Your task to perform on an android device: Open Chrome and go to settings Image 0: 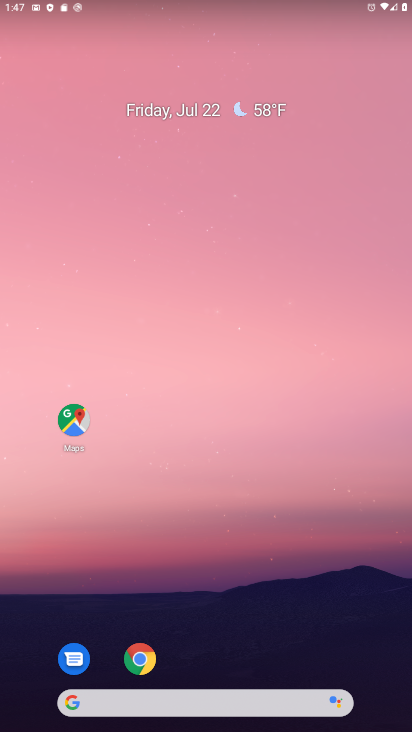
Step 0: drag from (239, 677) to (243, 49)
Your task to perform on an android device: Open Chrome and go to settings Image 1: 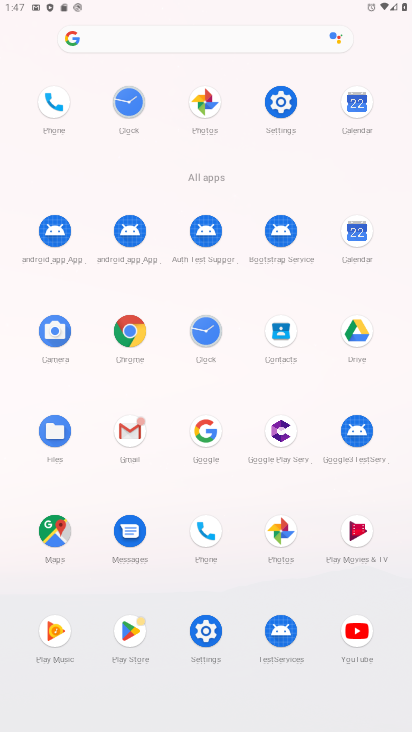
Step 1: click (138, 326)
Your task to perform on an android device: Open Chrome and go to settings Image 2: 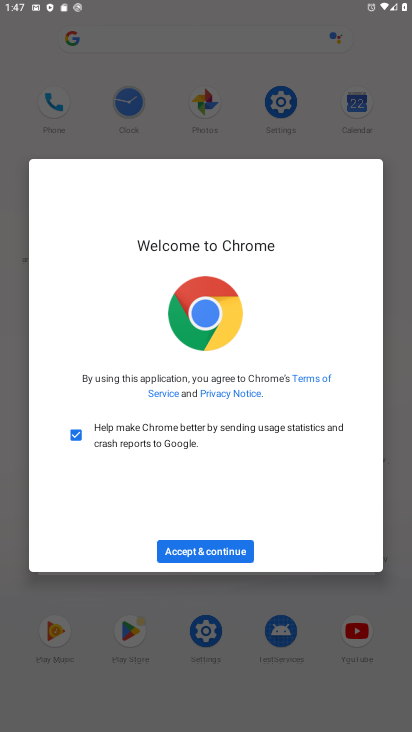
Step 2: click (239, 554)
Your task to perform on an android device: Open Chrome and go to settings Image 3: 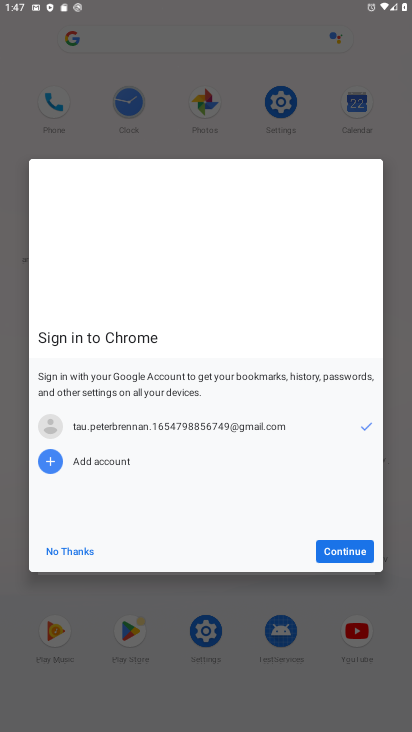
Step 3: click (362, 543)
Your task to perform on an android device: Open Chrome and go to settings Image 4: 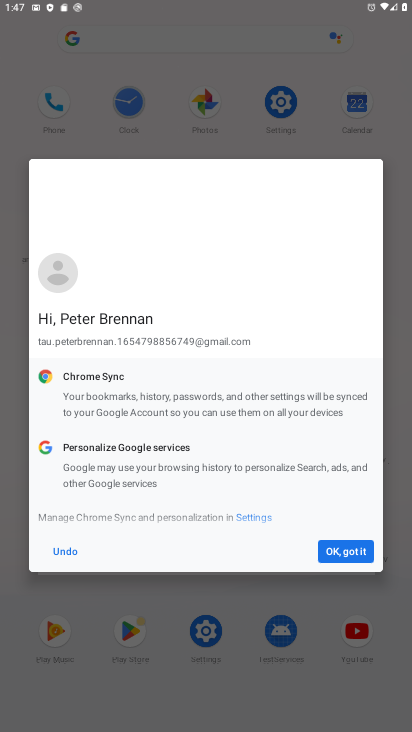
Step 4: click (351, 542)
Your task to perform on an android device: Open Chrome and go to settings Image 5: 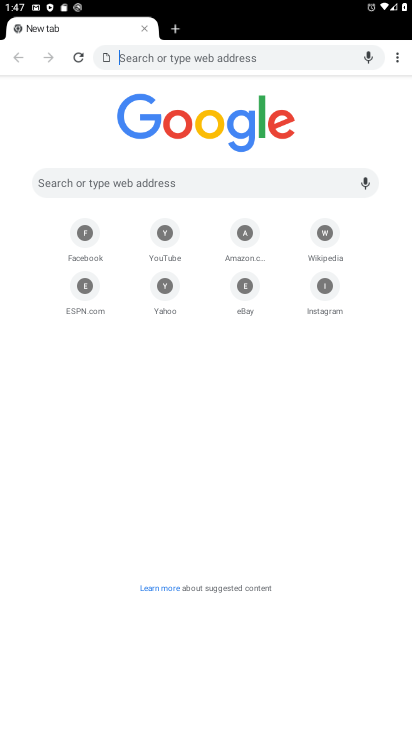
Step 5: task complete